Your task to perform on an android device: What's the weather going to be this weekend? Image 0: 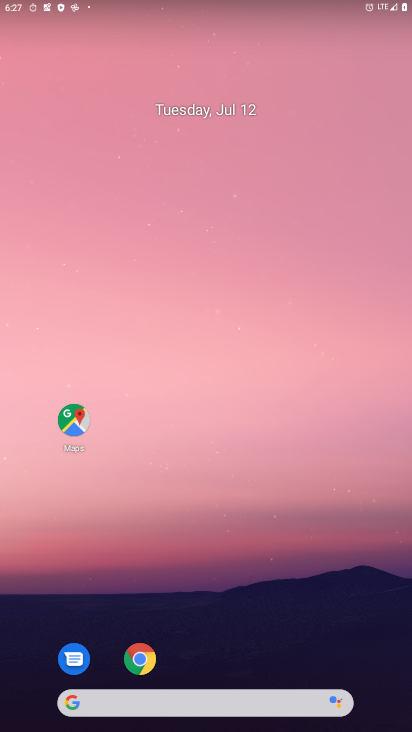
Step 0: press home button
Your task to perform on an android device: What's the weather going to be this weekend? Image 1: 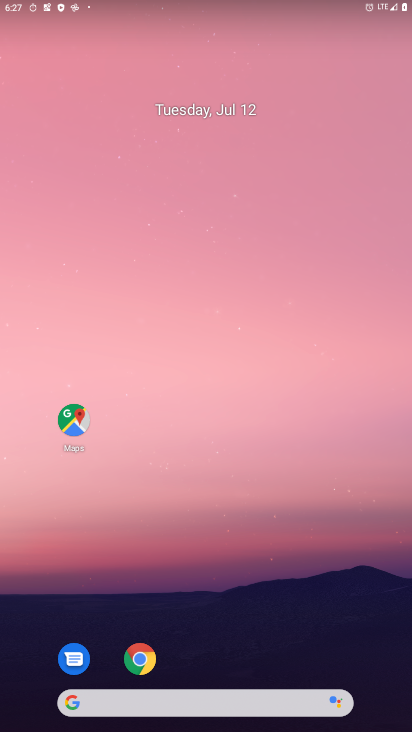
Step 1: click (192, 702)
Your task to perform on an android device: What's the weather going to be this weekend? Image 2: 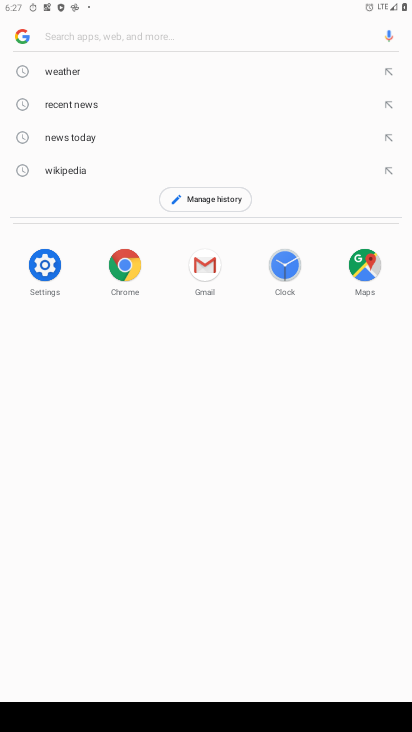
Step 2: click (56, 66)
Your task to perform on an android device: What's the weather going to be this weekend? Image 3: 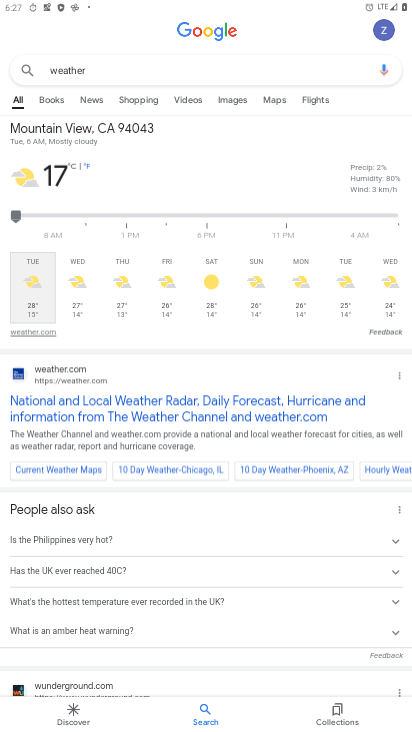
Step 3: click (34, 334)
Your task to perform on an android device: What's the weather going to be this weekend? Image 4: 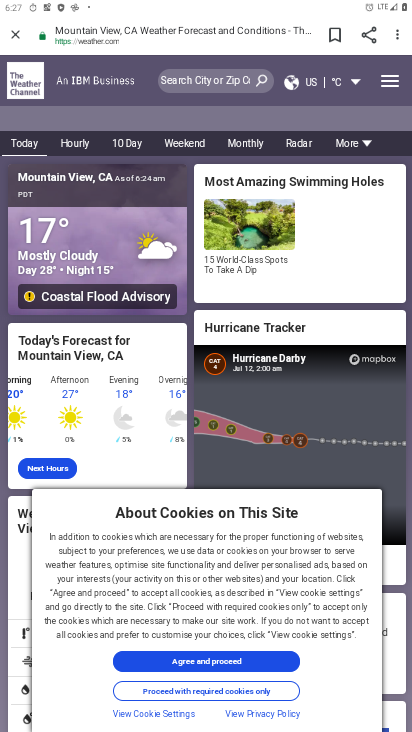
Step 4: click (178, 144)
Your task to perform on an android device: What's the weather going to be this weekend? Image 5: 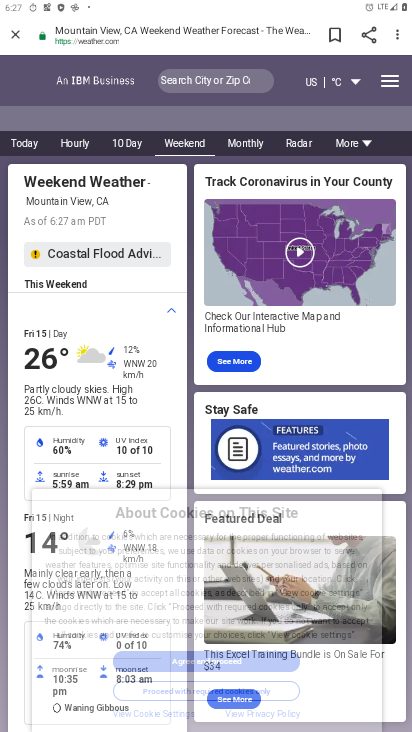
Step 5: task complete